Your task to perform on an android device: set an alarm Image 0: 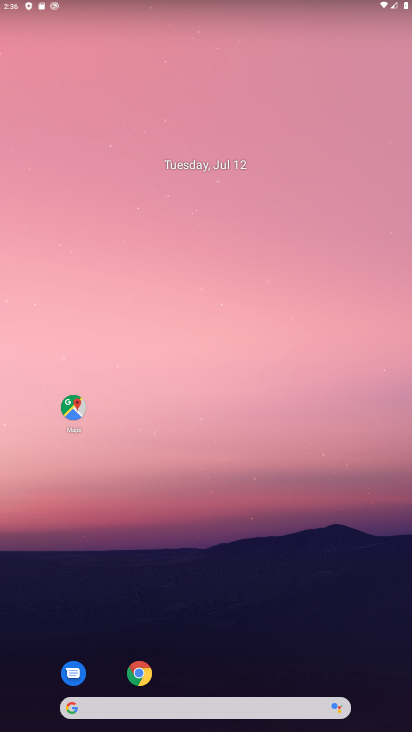
Step 0: drag from (347, 612) to (321, 282)
Your task to perform on an android device: set an alarm Image 1: 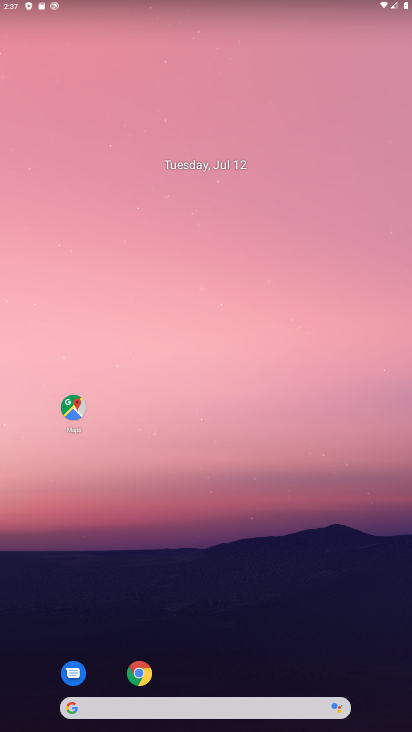
Step 1: drag from (305, 596) to (267, 155)
Your task to perform on an android device: set an alarm Image 2: 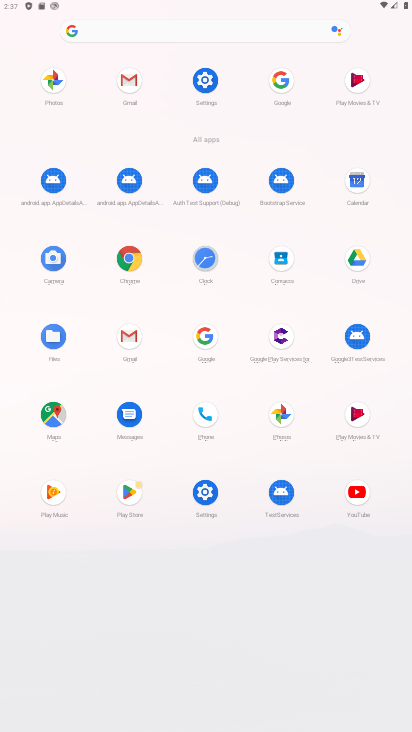
Step 2: click (199, 260)
Your task to perform on an android device: set an alarm Image 3: 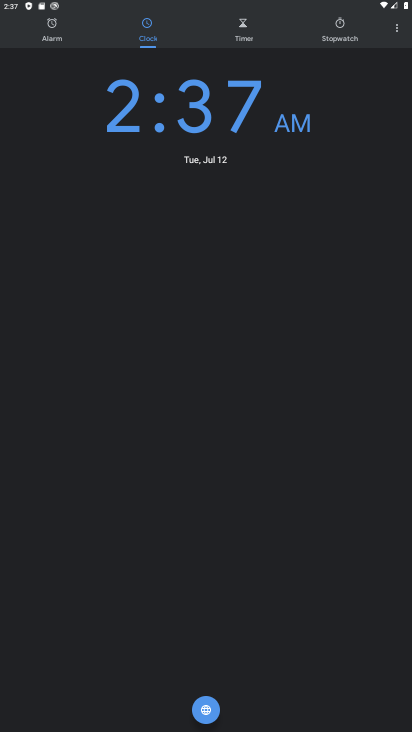
Step 3: click (57, 23)
Your task to perform on an android device: set an alarm Image 4: 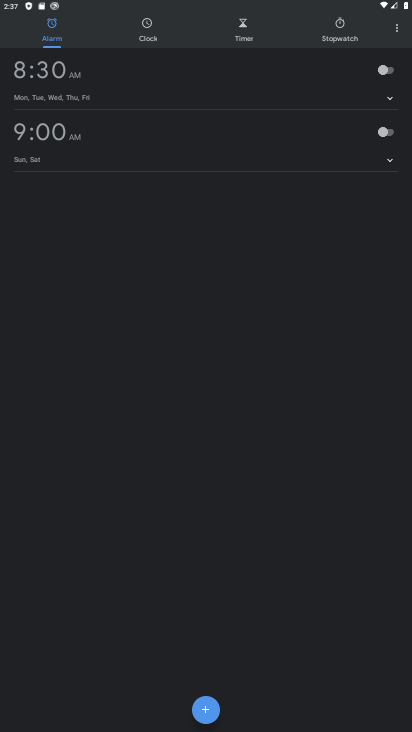
Step 4: click (395, 73)
Your task to perform on an android device: set an alarm Image 5: 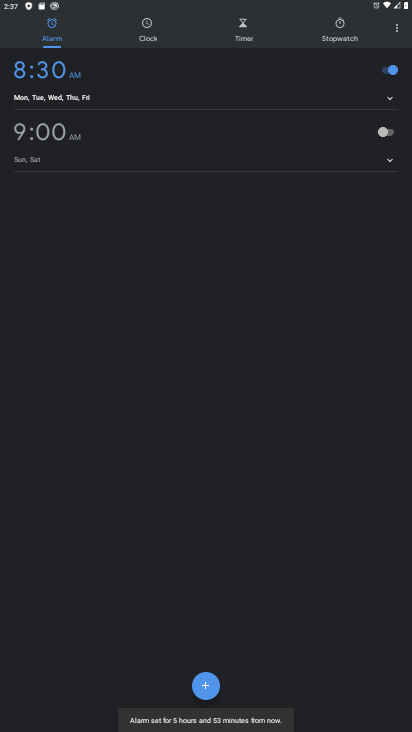
Step 5: task complete